Your task to perform on an android device: Search for sushi restaurants on Maps Image 0: 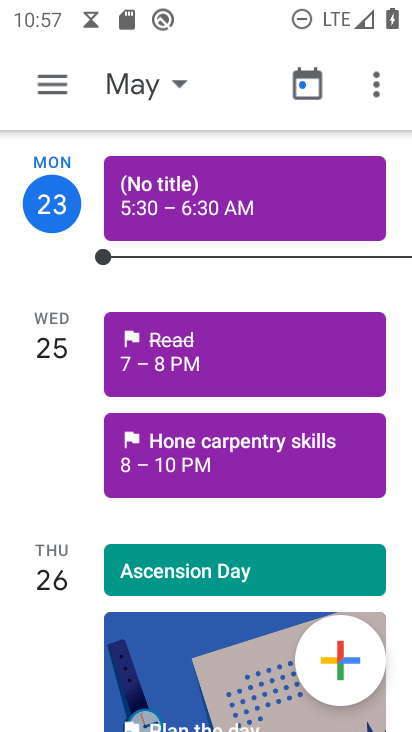
Step 0: press home button
Your task to perform on an android device: Search for sushi restaurants on Maps Image 1: 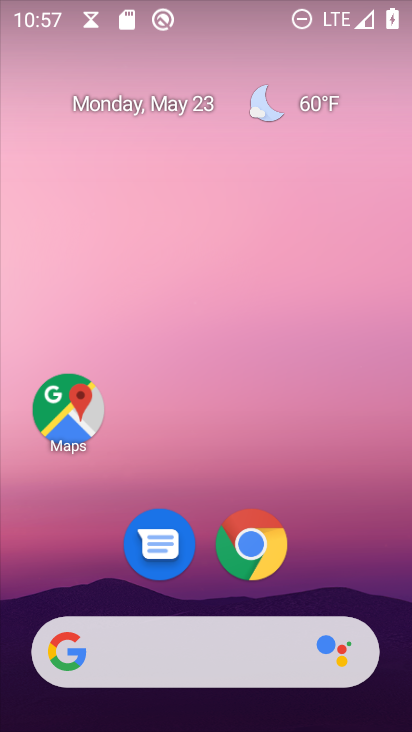
Step 1: click (66, 419)
Your task to perform on an android device: Search for sushi restaurants on Maps Image 2: 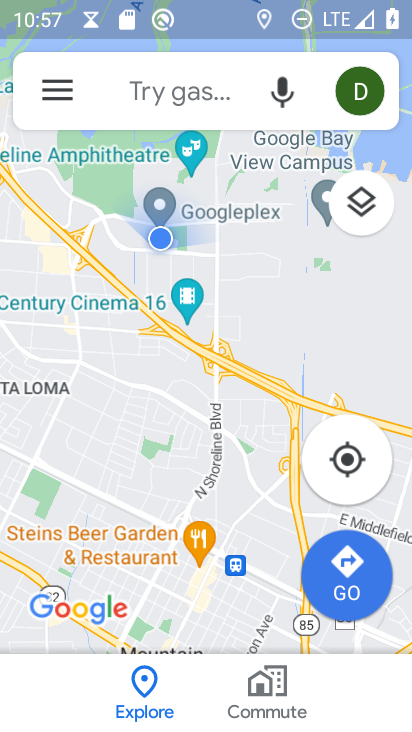
Step 2: click (178, 103)
Your task to perform on an android device: Search for sushi restaurants on Maps Image 3: 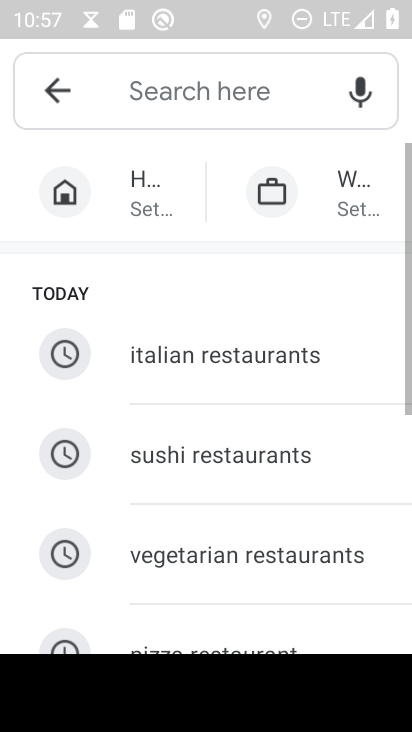
Step 3: click (224, 451)
Your task to perform on an android device: Search for sushi restaurants on Maps Image 4: 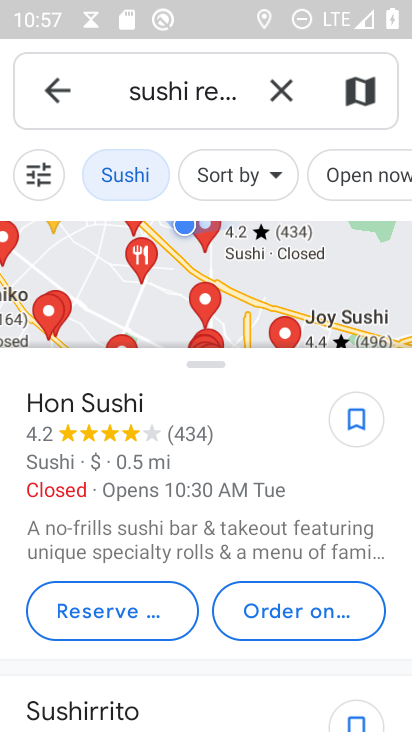
Step 4: task complete